Your task to perform on an android device: toggle translation in the chrome app Image 0: 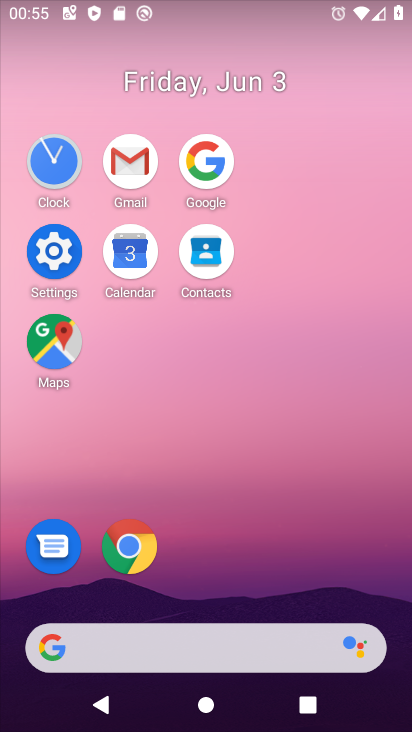
Step 0: click (125, 557)
Your task to perform on an android device: toggle translation in the chrome app Image 1: 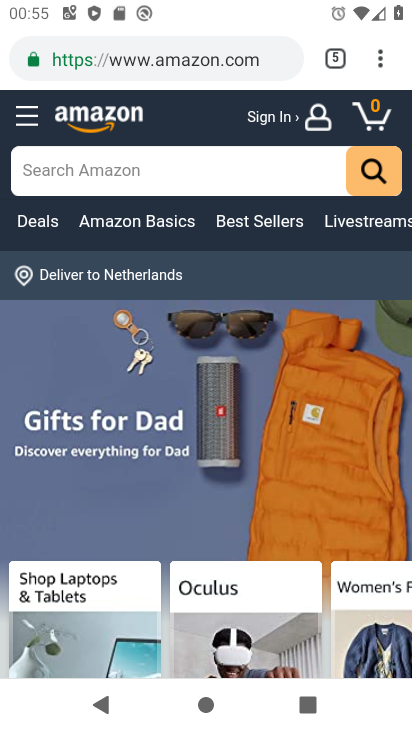
Step 1: click (380, 64)
Your task to perform on an android device: toggle translation in the chrome app Image 2: 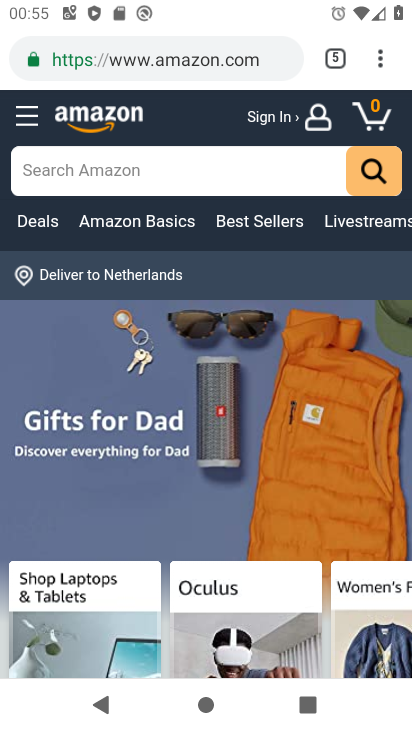
Step 2: click (370, 61)
Your task to perform on an android device: toggle translation in the chrome app Image 3: 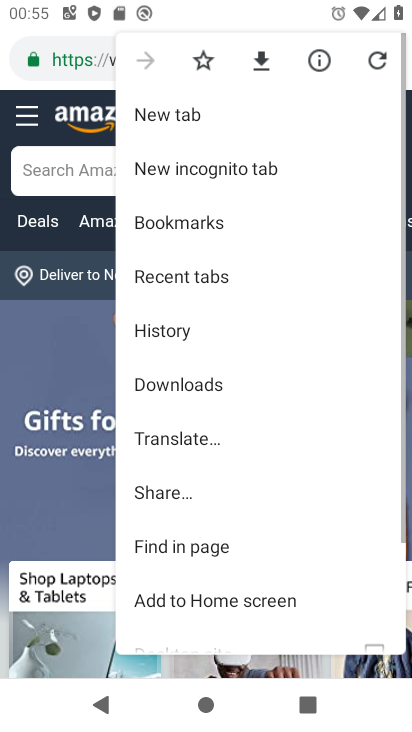
Step 3: drag from (263, 449) to (266, 140)
Your task to perform on an android device: toggle translation in the chrome app Image 4: 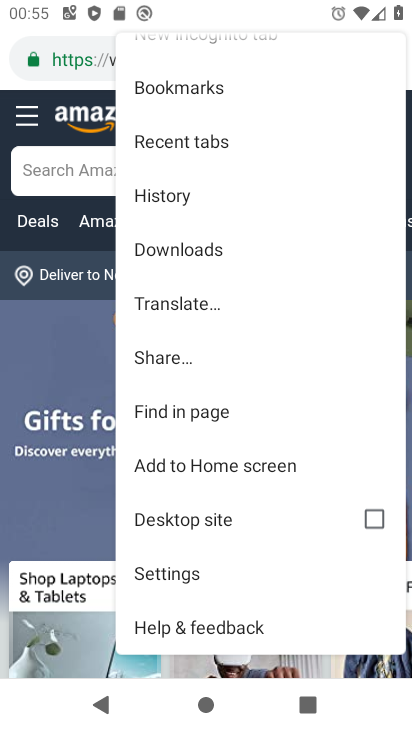
Step 4: click (222, 572)
Your task to perform on an android device: toggle translation in the chrome app Image 5: 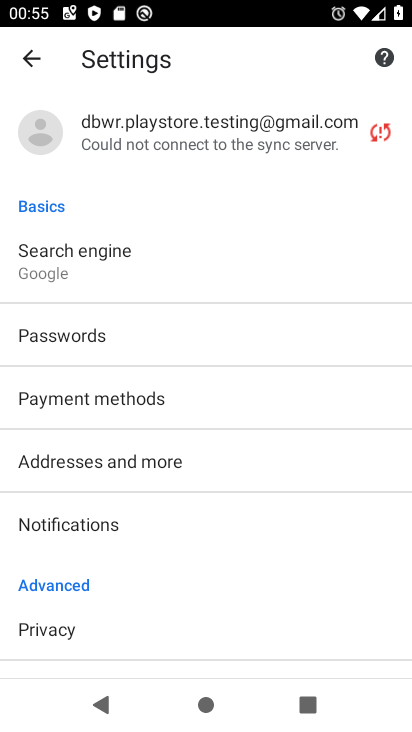
Step 5: drag from (200, 519) to (200, 173)
Your task to perform on an android device: toggle translation in the chrome app Image 6: 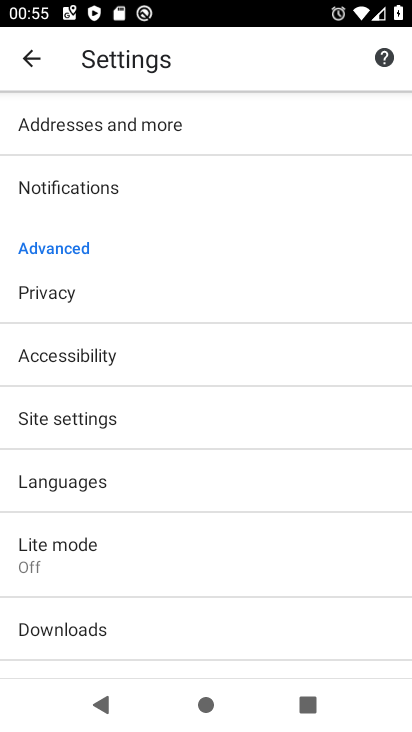
Step 6: click (102, 478)
Your task to perform on an android device: toggle translation in the chrome app Image 7: 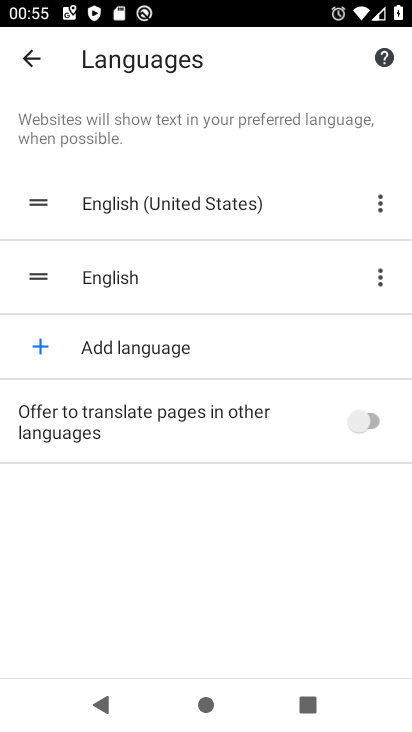
Step 7: click (359, 426)
Your task to perform on an android device: toggle translation in the chrome app Image 8: 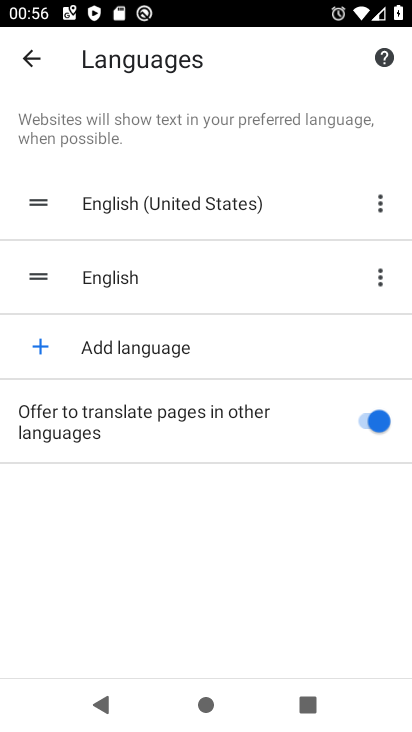
Step 8: task complete